Your task to perform on an android device: toggle sleep mode Image 0: 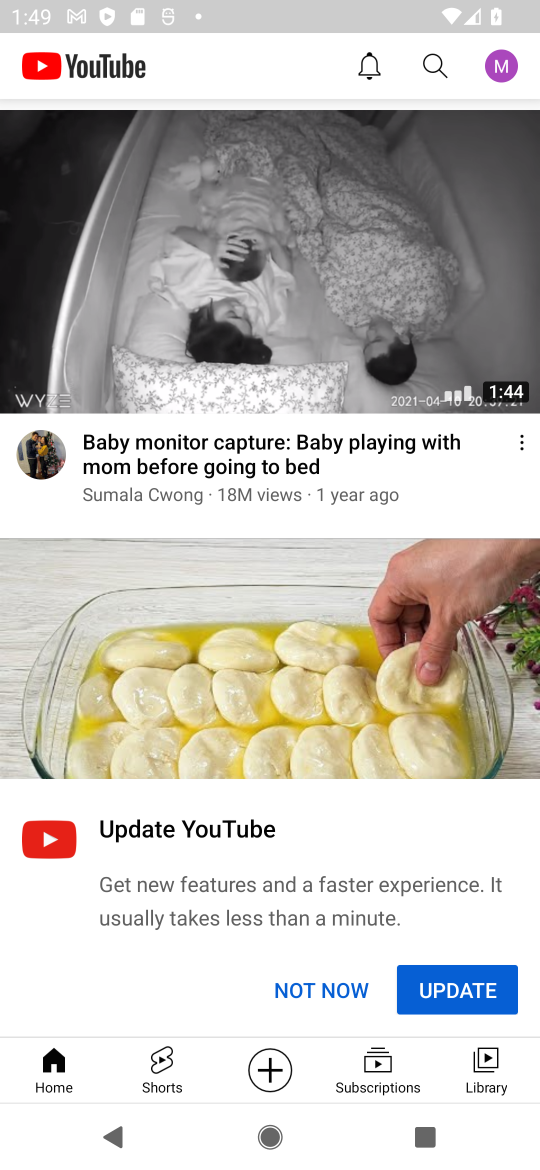
Step 0: press home button
Your task to perform on an android device: toggle sleep mode Image 1: 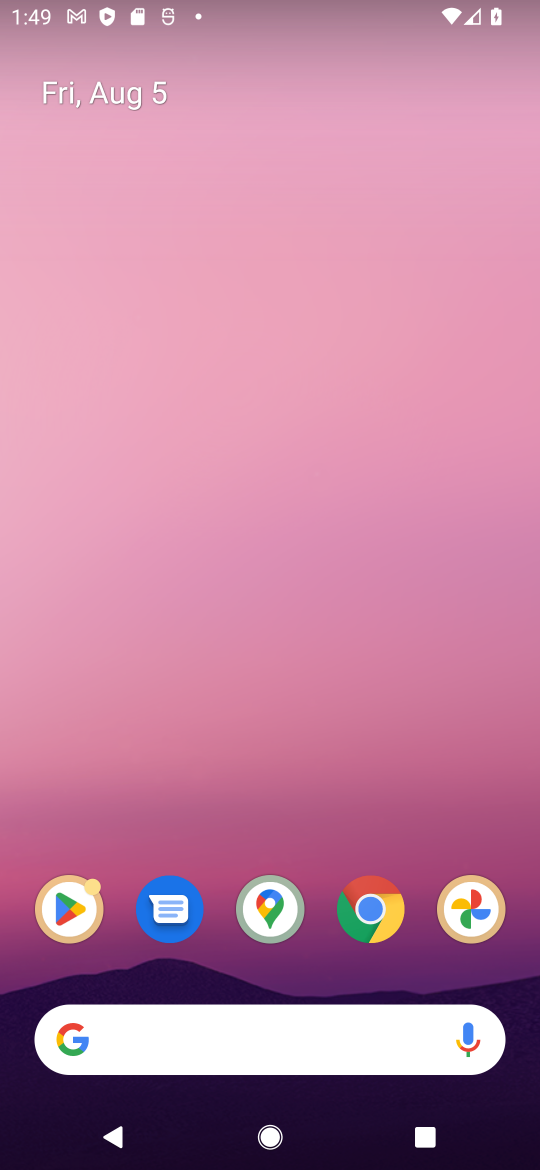
Step 1: drag from (338, 959) to (406, 30)
Your task to perform on an android device: toggle sleep mode Image 2: 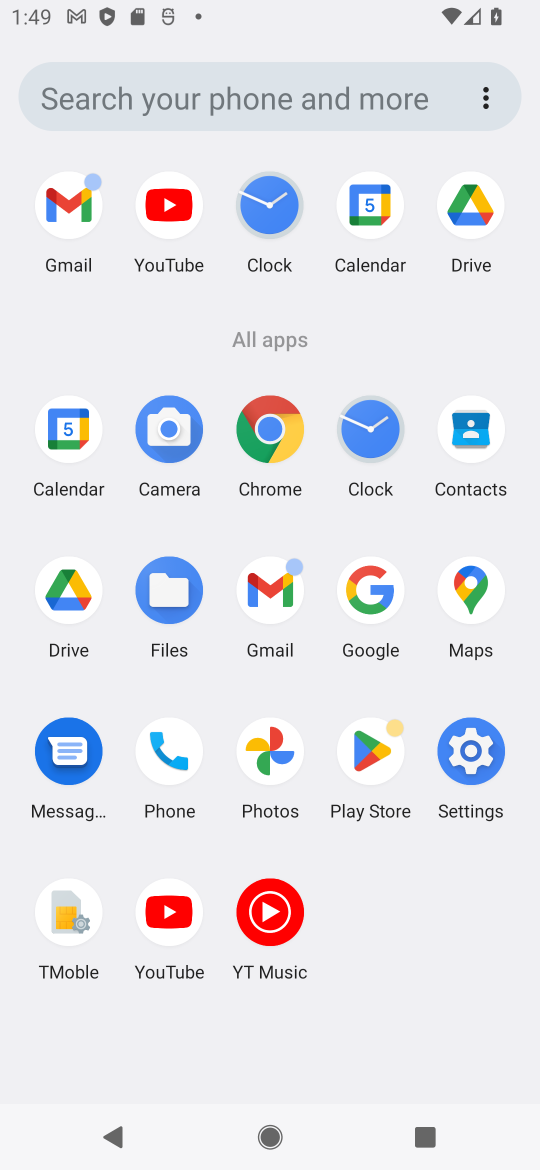
Step 2: click (466, 737)
Your task to perform on an android device: toggle sleep mode Image 3: 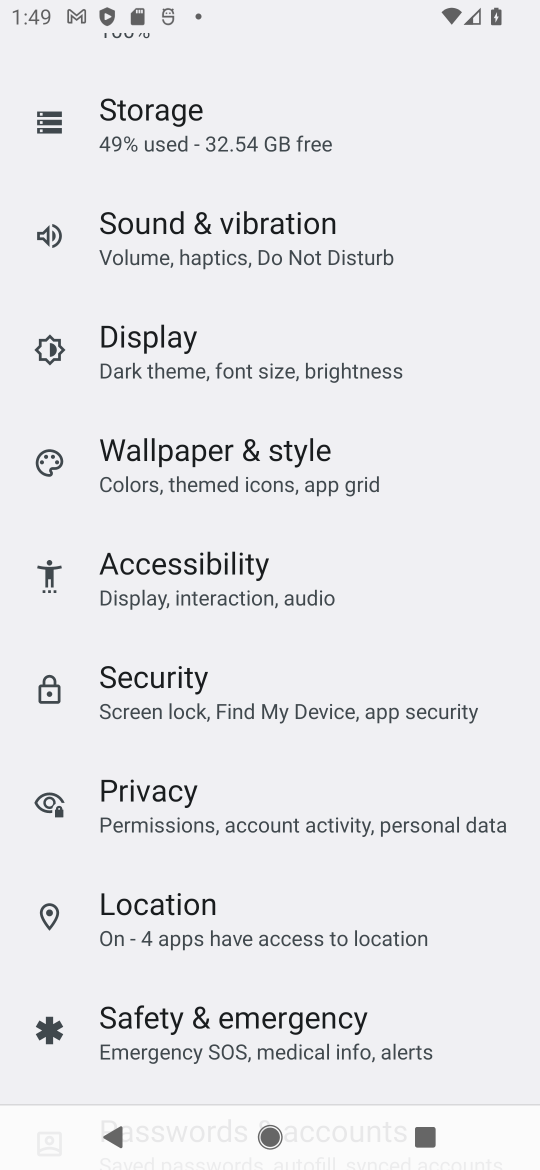
Step 3: click (280, 263)
Your task to perform on an android device: toggle sleep mode Image 4: 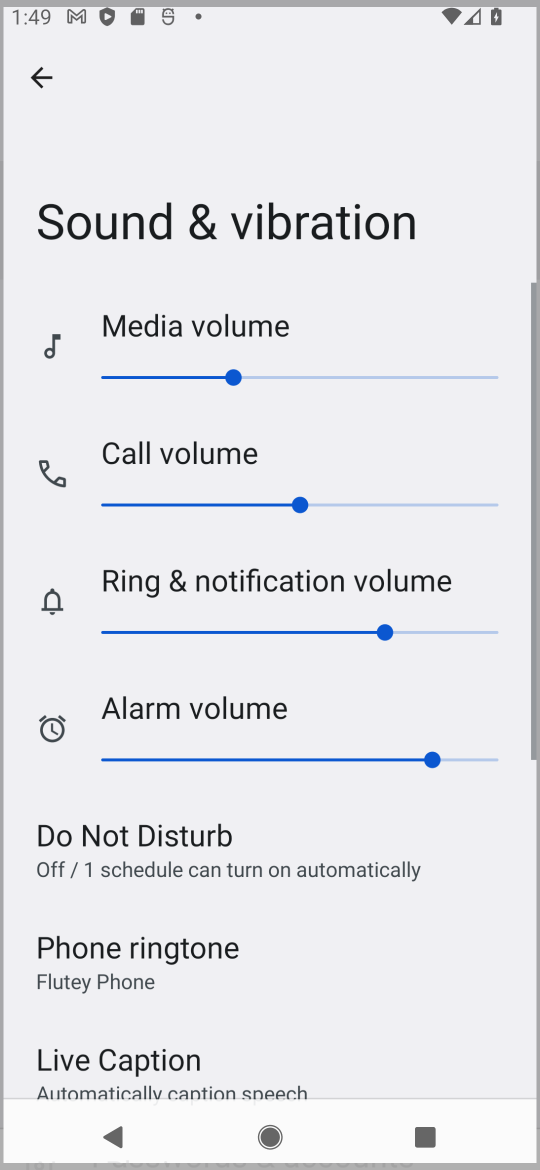
Step 4: task complete